Your task to perform on an android device: Open Android settings Image 0: 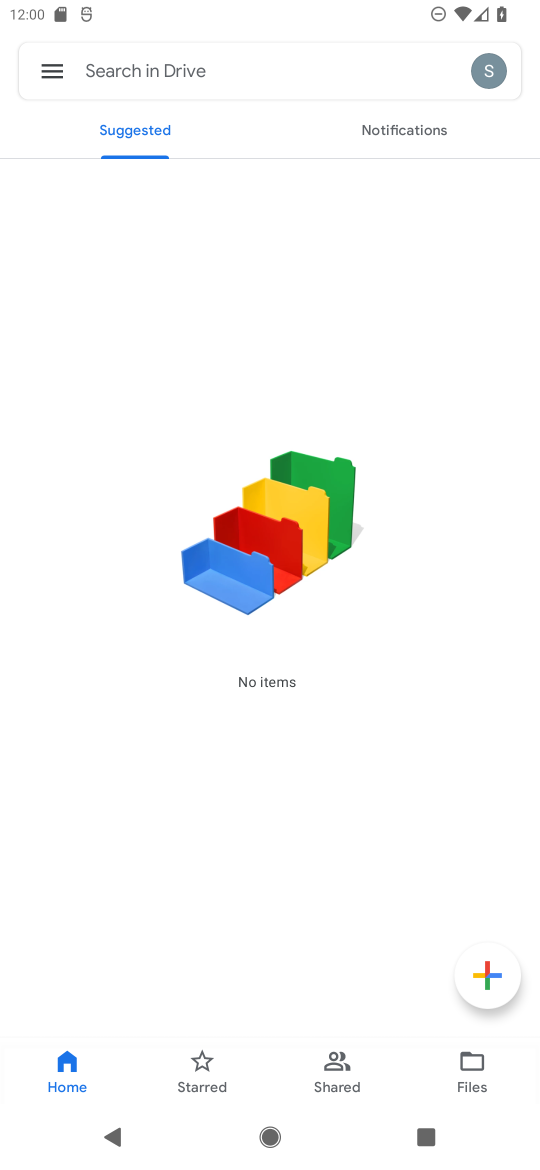
Step 0: press home button
Your task to perform on an android device: Open Android settings Image 1: 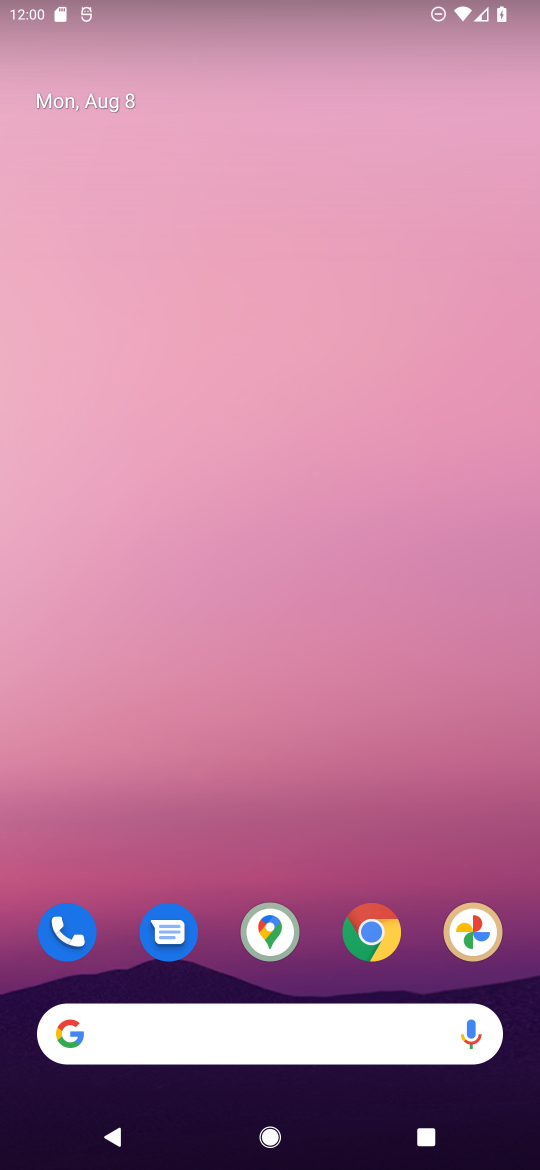
Step 1: drag from (320, 872) to (395, 81)
Your task to perform on an android device: Open Android settings Image 2: 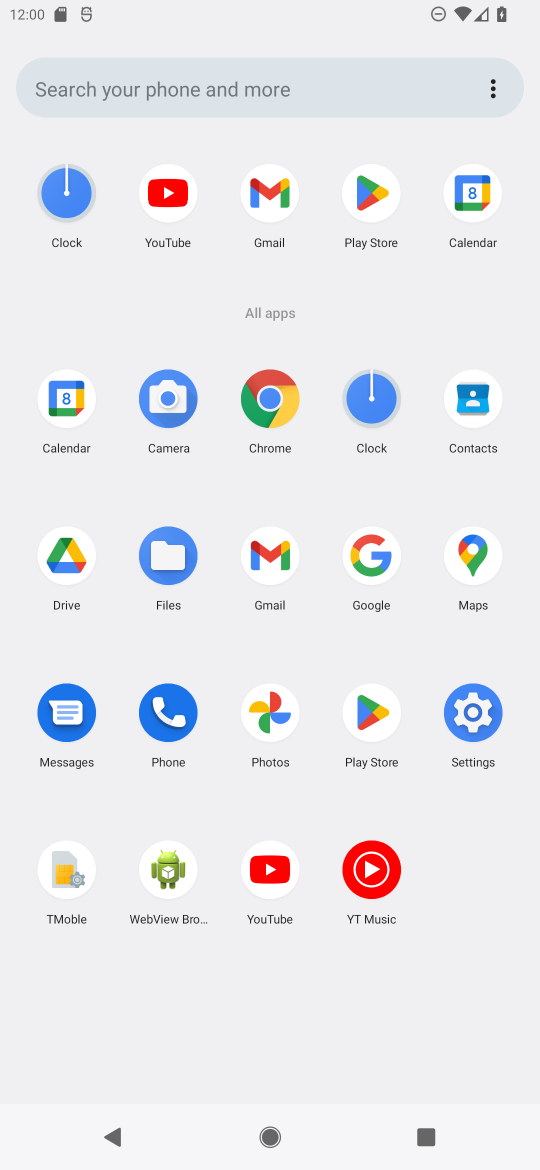
Step 2: click (462, 727)
Your task to perform on an android device: Open Android settings Image 3: 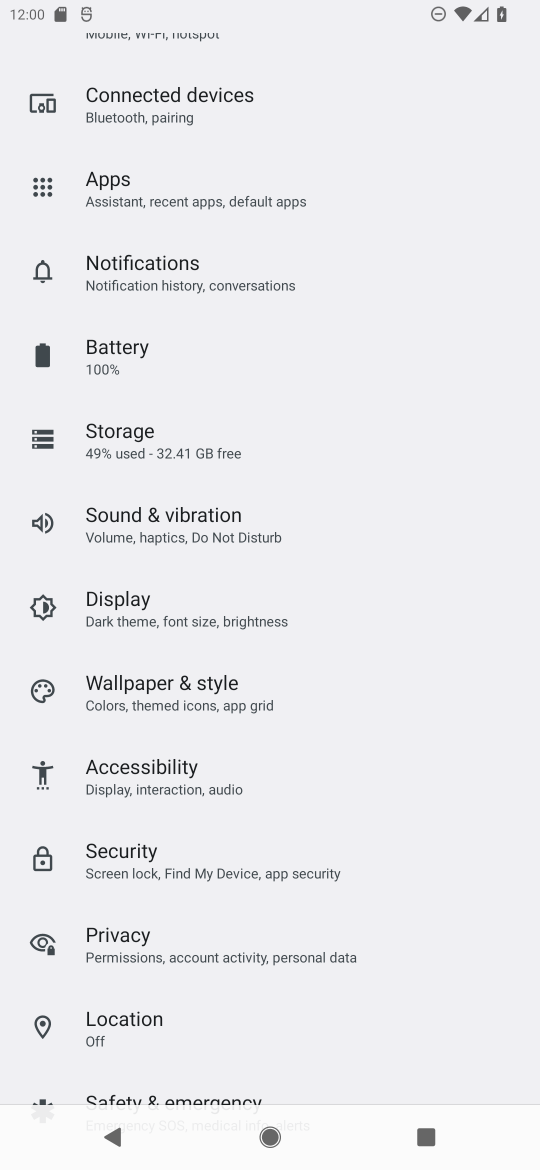
Step 3: task complete